Your task to perform on an android device: set an alarm Image 0: 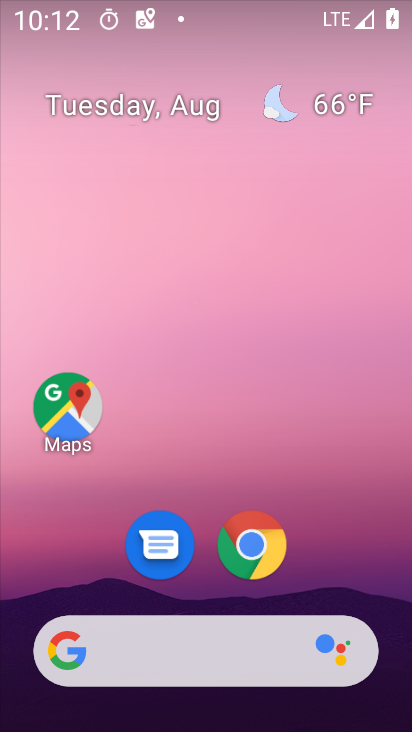
Step 0: drag from (250, 589) to (345, 19)
Your task to perform on an android device: set an alarm Image 1: 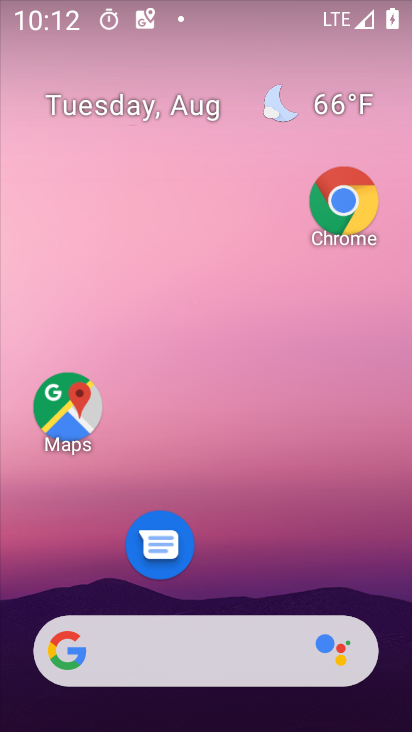
Step 1: drag from (279, 617) to (319, 112)
Your task to perform on an android device: set an alarm Image 2: 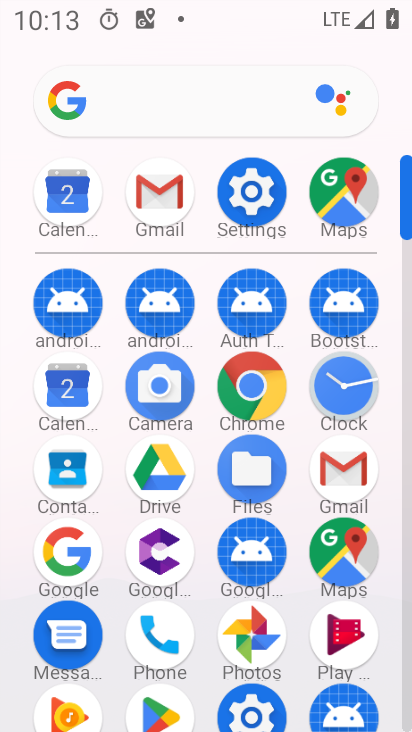
Step 2: click (350, 406)
Your task to perform on an android device: set an alarm Image 3: 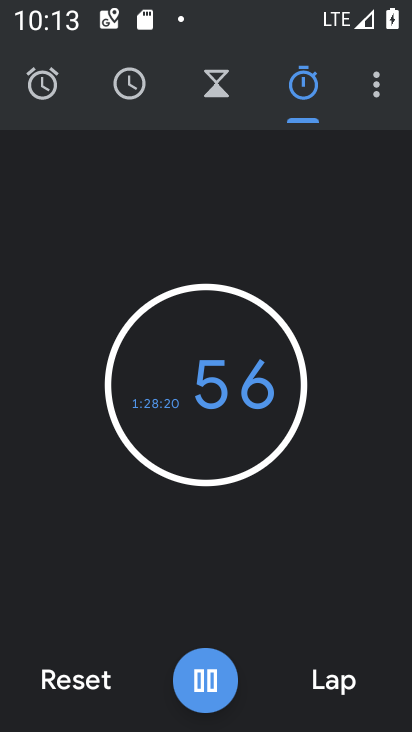
Step 3: click (55, 96)
Your task to perform on an android device: set an alarm Image 4: 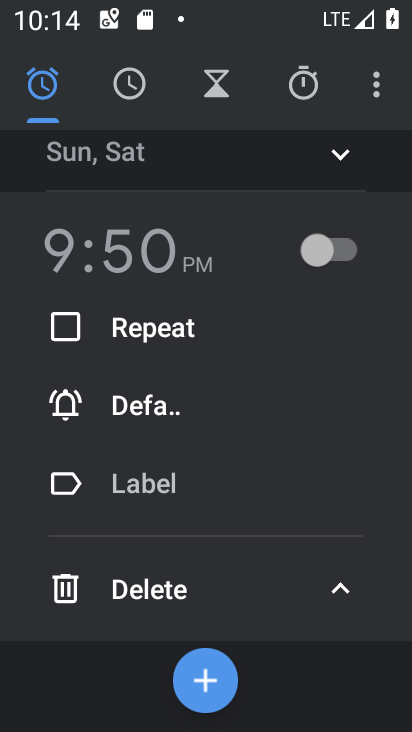
Step 4: click (204, 697)
Your task to perform on an android device: set an alarm Image 5: 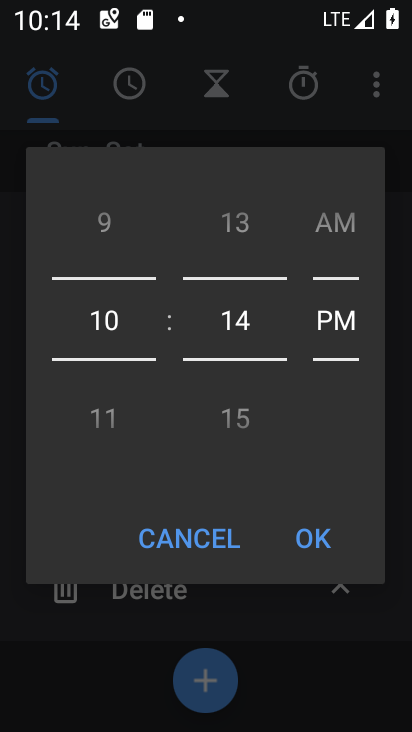
Step 5: click (320, 551)
Your task to perform on an android device: set an alarm Image 6: 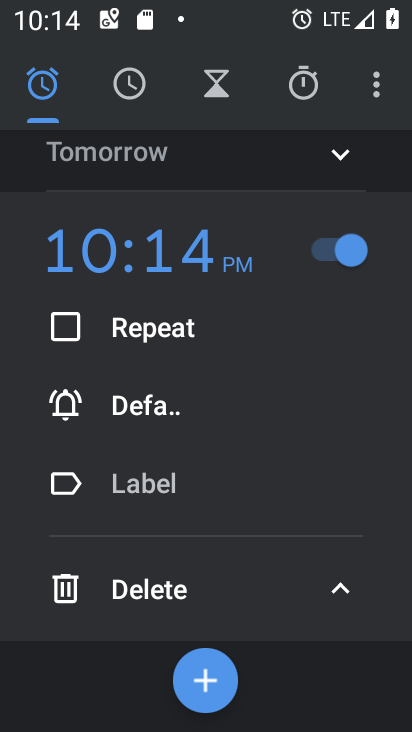
Step 6: task complete